Your task to perform on an android device: set default search engine in the chrome app Image 0: 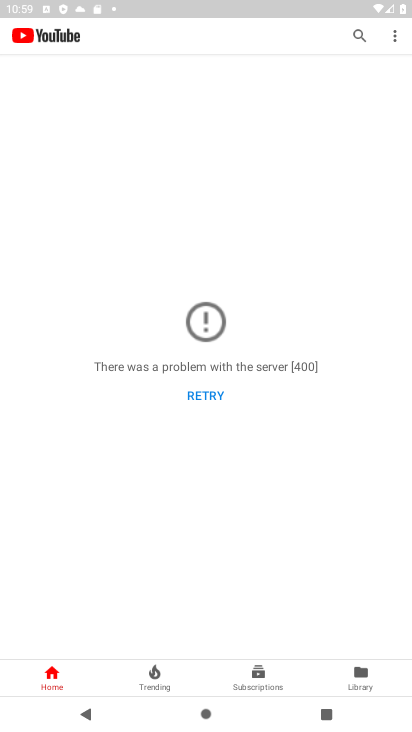
Step 0: press home button
Your task to perform on an android device: set default search engine in the chrome app Image 1: 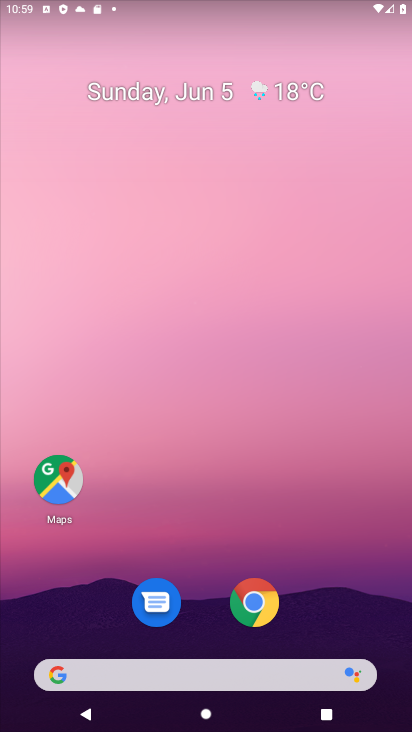
Step 1: click (263, 607)
Your task to perform on an android device: set default search engine in the chrome app Image 2: 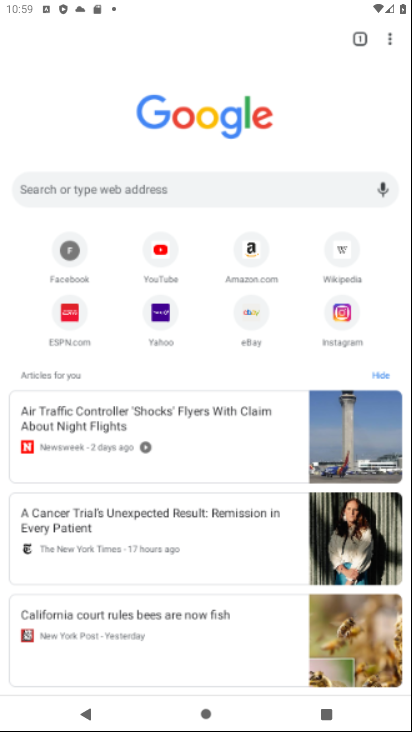
Step 2: task complete